Your task to perform on an android device: toggle data saver in the chrome app Image 0: 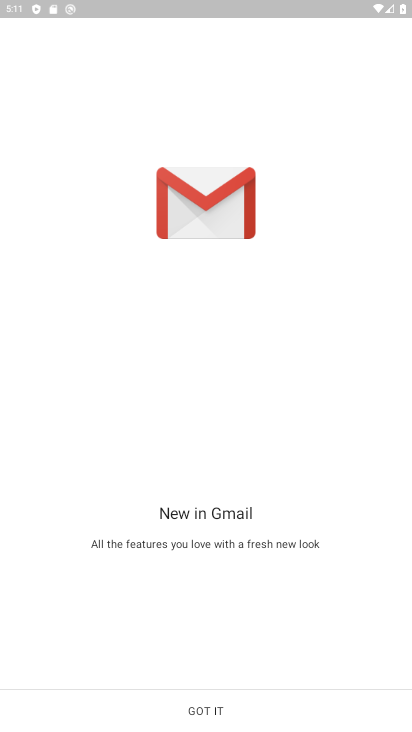
Step 0: click (197, 710)
Your task to perform on an android device: toggle data saver in the chrome app Image 1: 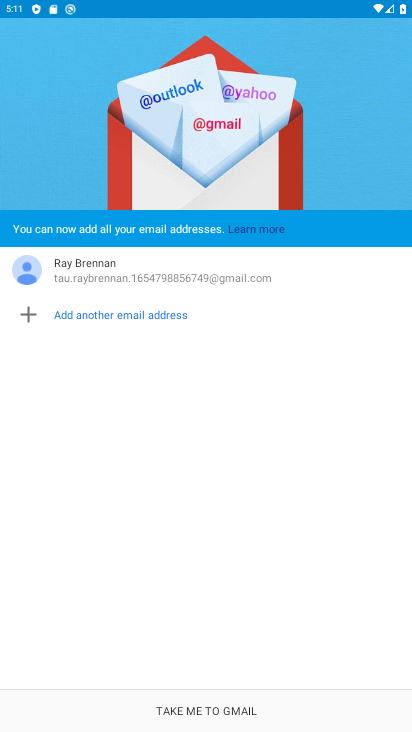
Step 1: click (197, 709)
Your task to perform on an android device: toggle data saver in the chrome app Image 2: 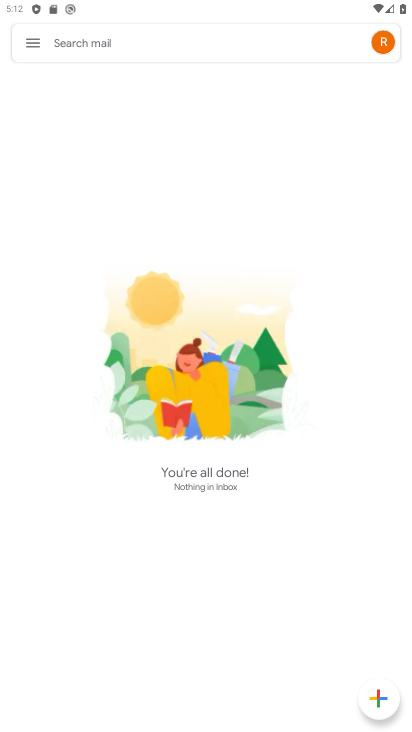
Step 2: press home button
Your task to perform on an android device: toggle data saver in the chrome app Image 3: 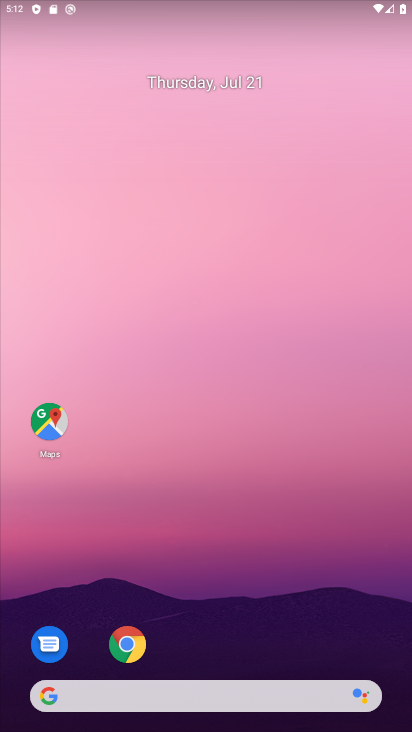
Step 3: drag from (250, 566) to (218, 223)
Your task to perform on an android device: toggle data saver in the chrome app Image 4: 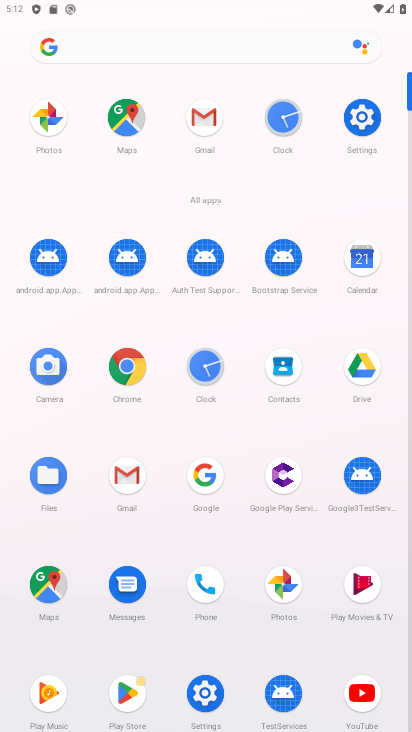
Step 4: click (136, 364)
Your task to perform on an android device: toggle data saver in the chrome app Image 5: 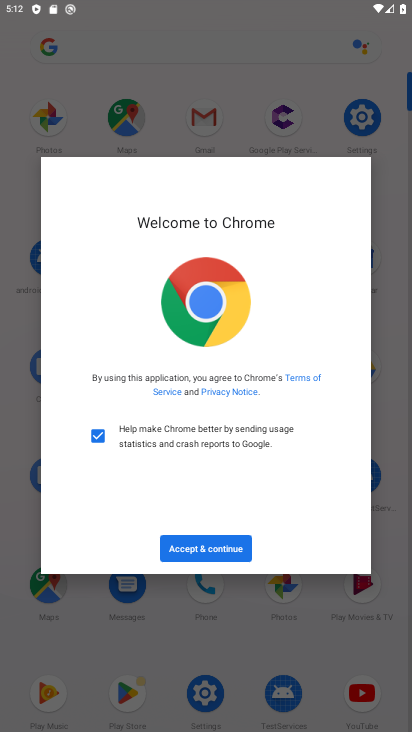
Step 5: click (205, 546)
Your task to perform on an android device: toggle data saver in the chrome app Image 6: 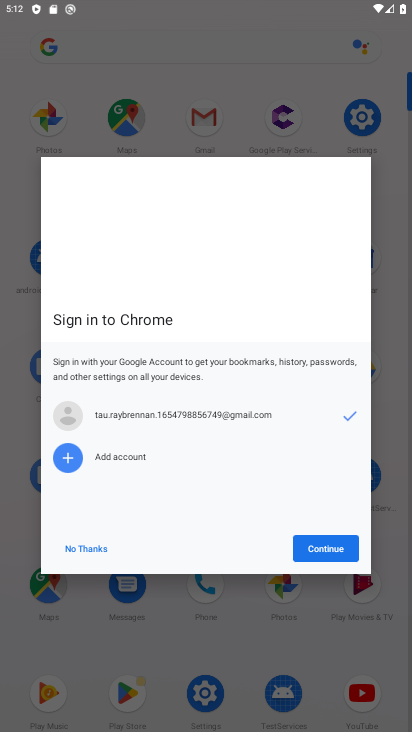
Step 6: click (326, 549)
Your task to perform on an android device: toggle data saver in the chrome app Image 7: 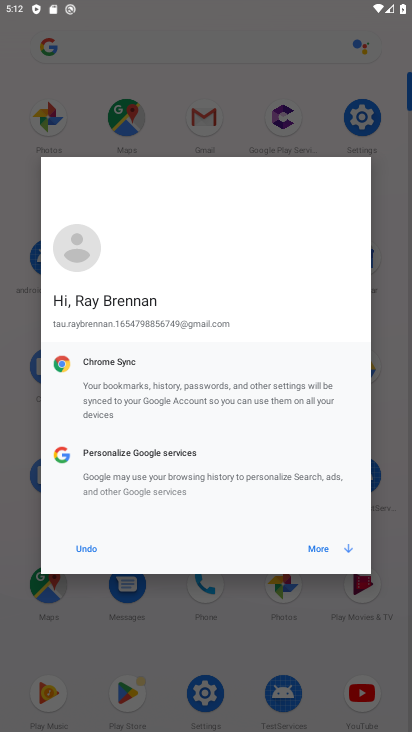
Step 7: click (318, 548)
Your task to perform on an android device: toggle data saver in the chrome app Image 8: 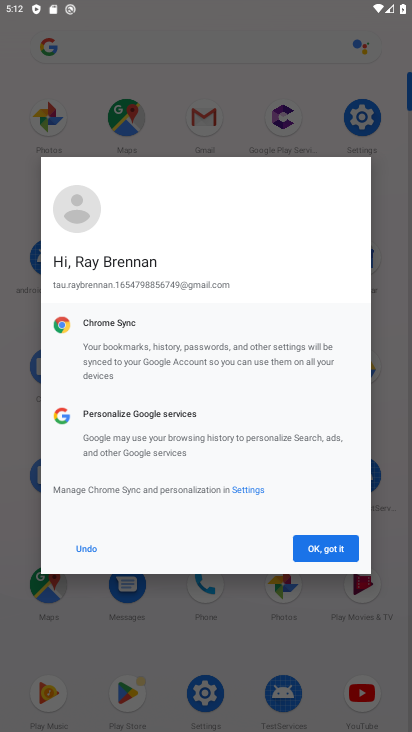
Step 8: click (341, 551)
Your task to perform on an android device: toggle data saver in the chrome app Image 9: 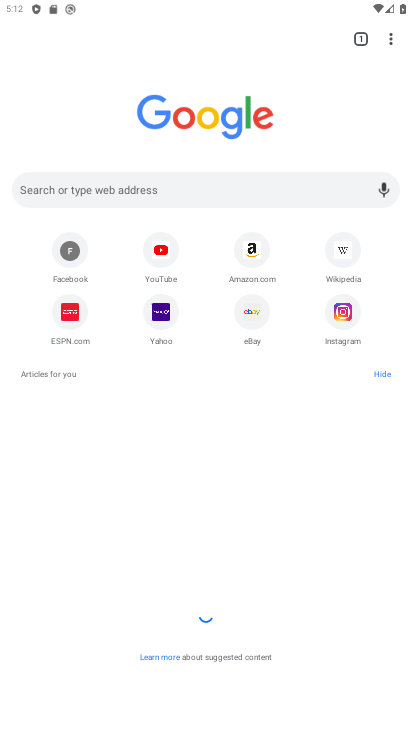
Step 9: click (389, 42)
Your task to perform on an android device: toggle data saver in the chrome app Image 10: 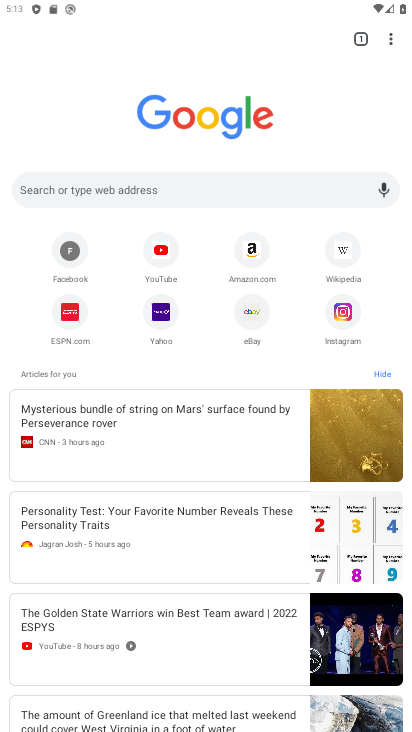
Step 10: task complete